Your task to perform on an android device: See recent photos Image 0: 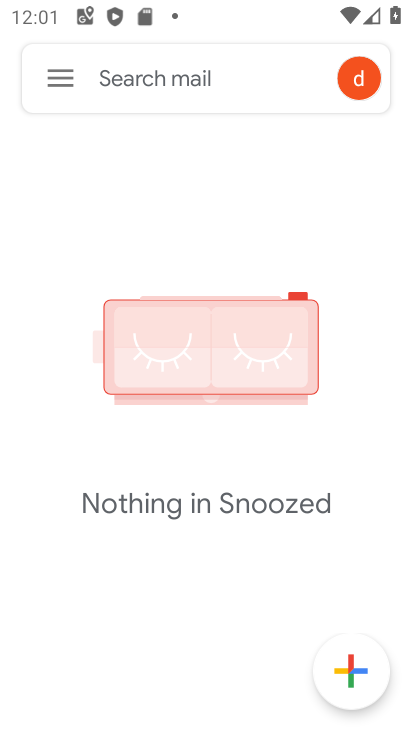
Step 0: press home button
Your task to perform on an android device: See recent photos Image 1: 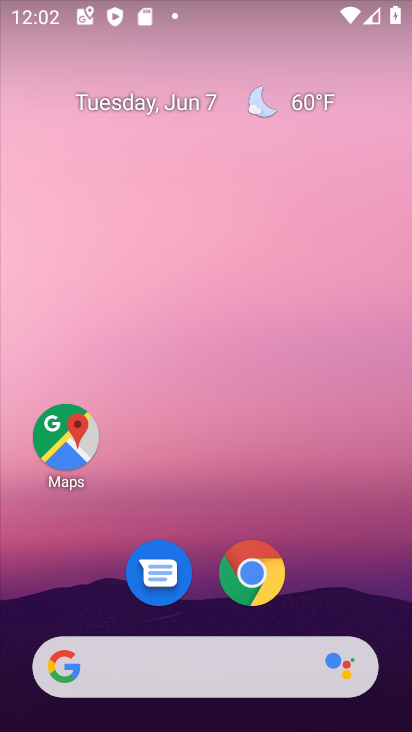
Step 1: drag from (362, 572) to (360, 413)
Your task to perform on an android device: See recent photos Image 2: 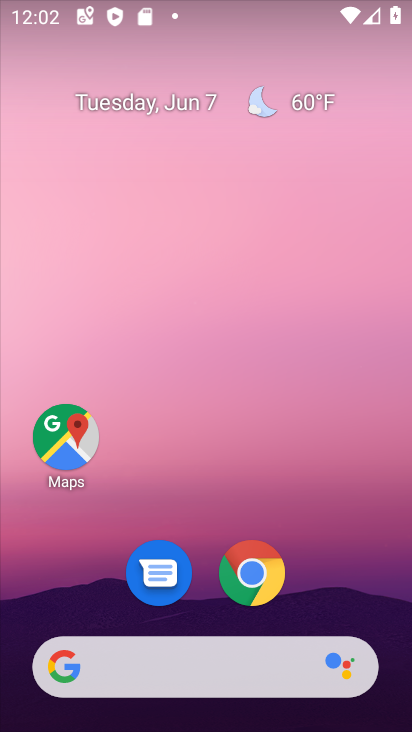
Step 2: drag from (360, 600) to (403, 91)
Your task to perform on an android device: See recent photos Image 3: 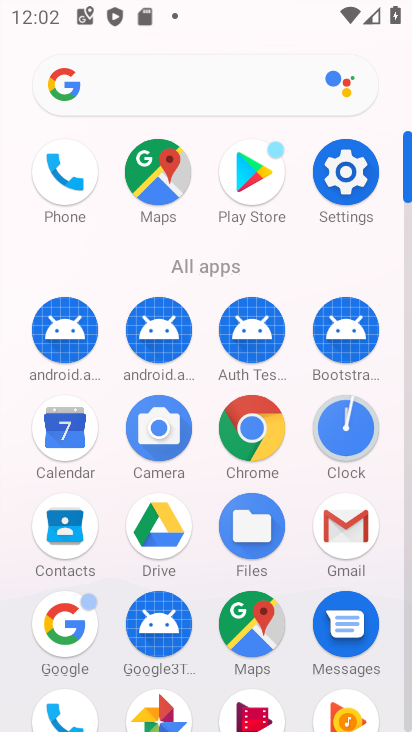
Step 3: click (174, 707)
Your task to perform on an android device: See recent photos Image 4: 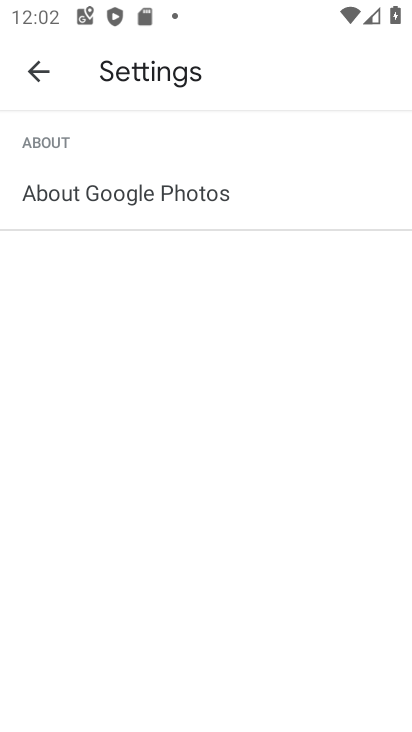
Step 4: click (32, 79)
Your task to perform on an android device: See recent photos Image 5: 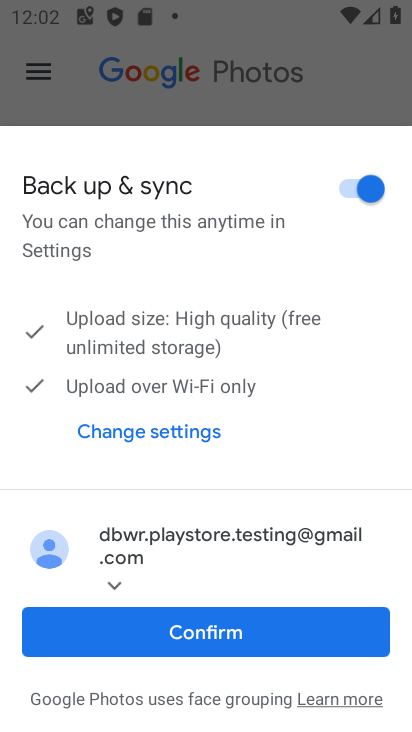
Step 5: click (225, 639)
Your task to perform on an android device: See recent photos Image 6: 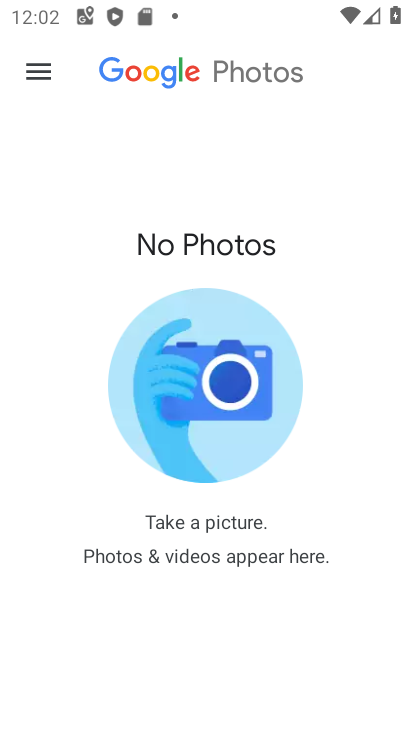
Step 6: task complete